Your task to perform on an android device: see creations saved in the google photos Image 0: 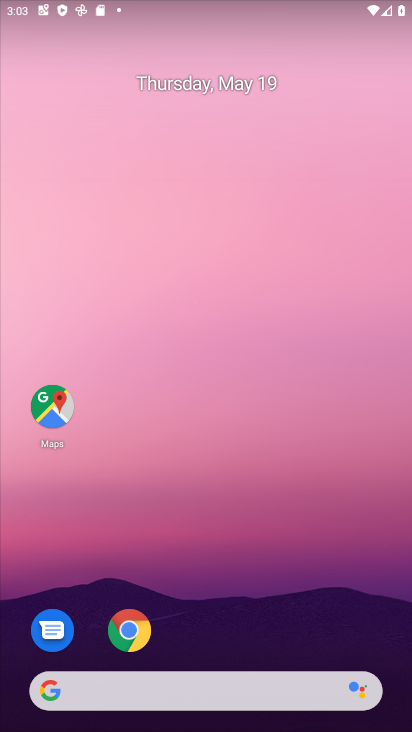
Step 0: drag from (385, 645) to (312, 18)
Your task to perform on an android device: see creations saved in the google photos Image 1: 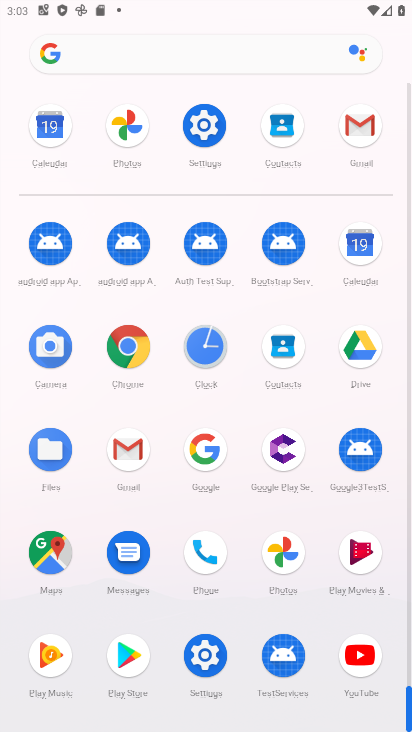
Step 1: click (280, 549)
Your task to perform on an android device: see creations saved in the google photos Image 2: 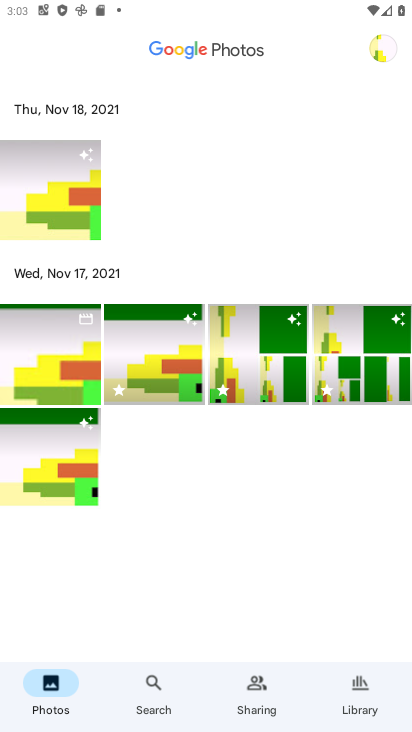
Step 2: task complete